Your task to perform on an android device: Go to ESPN.com Image 0: 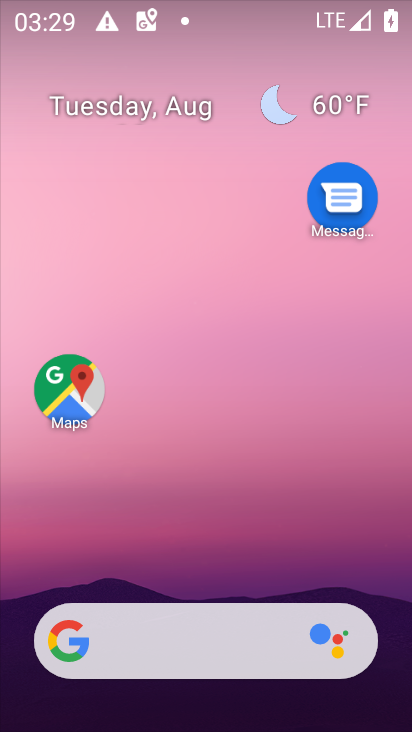
Step 0: drag from (217, 577) to (192, 95)
Your task to perform on an android device: Go to ESPN.com Image 1: 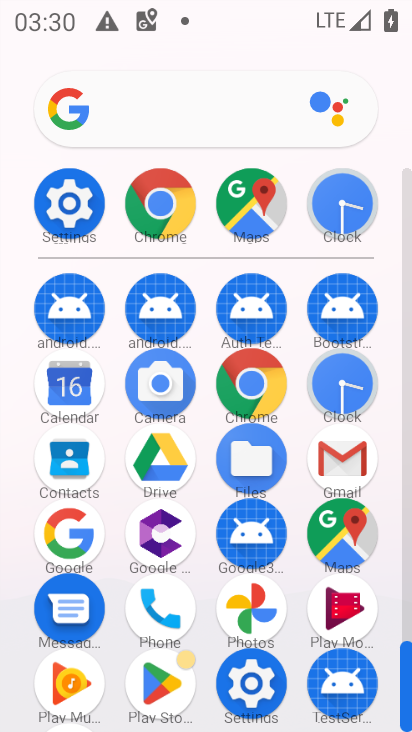
Step 1: click (172, 218)
Your task to perform on an android device: Go to ESPN.com Image 2: 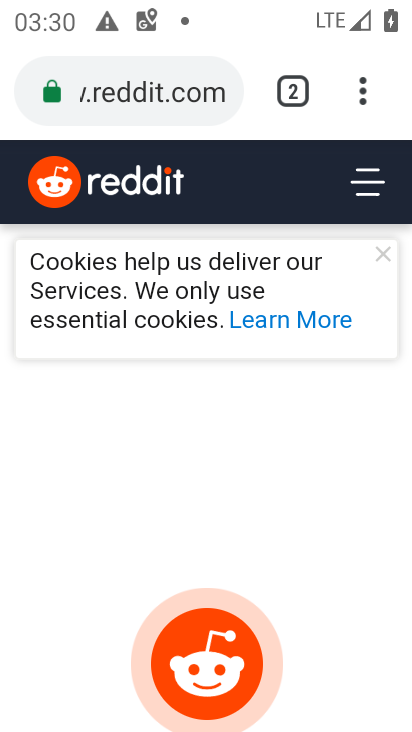
Step 2: click (213, 87)
Your task to perform on an android device: Go to ESPN.com Image 3: 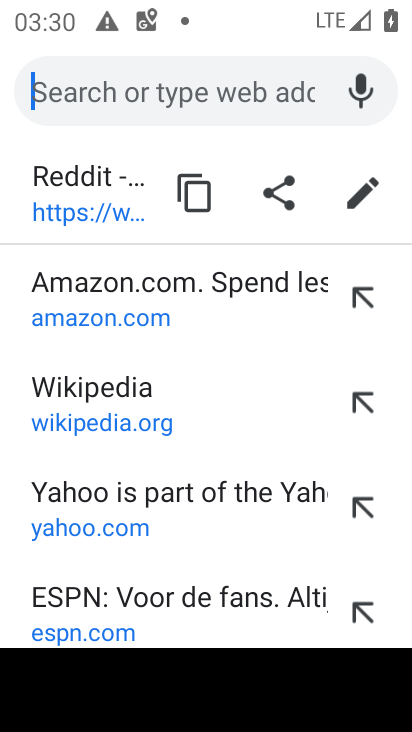
Step 3: click (194, 620)
Your task to perform on an android device: Go to ESPN.com Image 4: 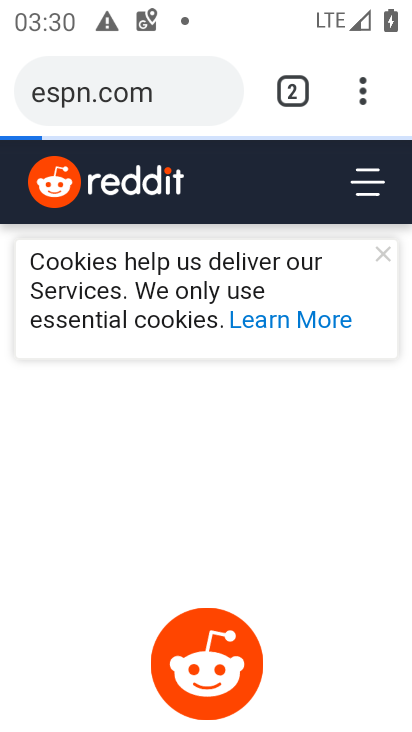
Step 4: task complete